Your task to perform on an android device: open sync settings in chrome Image 0: 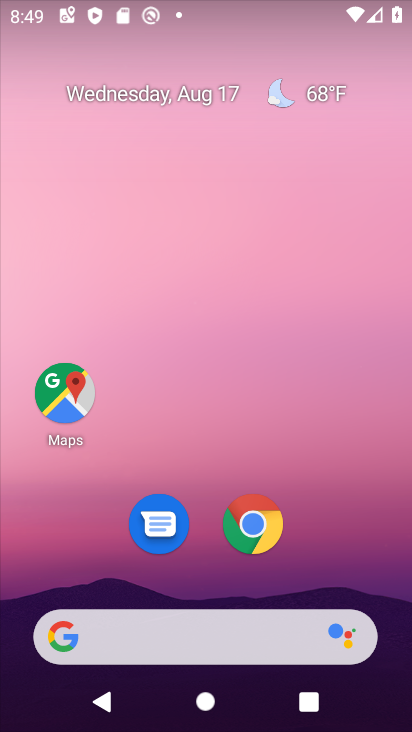
Step 0: click (257, 521)
Your task to perform on an android device: open sync settings in chrome Image 1: 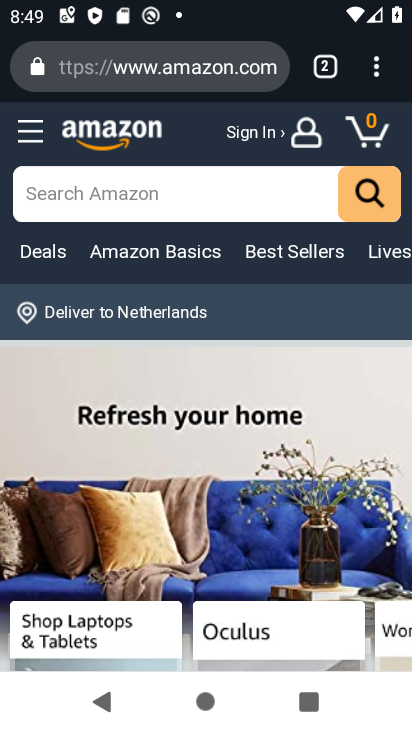
Step 1: click (374, 72)
Your task to perform on an android device: open sync settings in chrome Image 2: 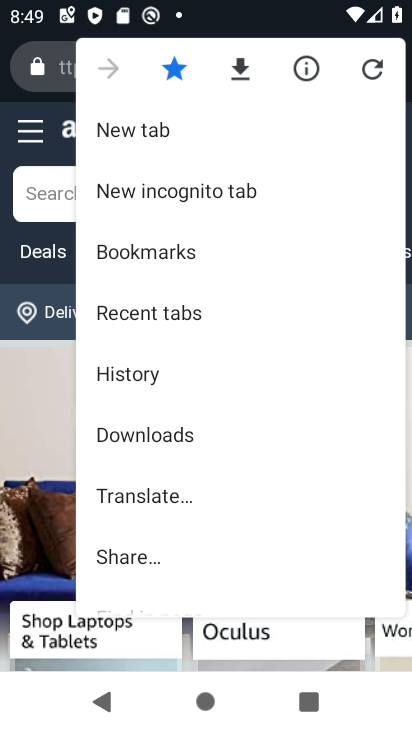
Step 2: drag from (284, 478) to (287, 172)
Your task to perform on an android device: open sync settings in chrome Image 3: 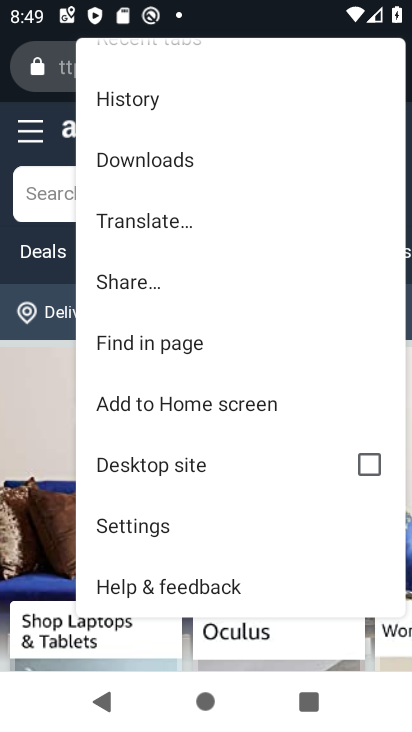
Step 3: click (151, 532)
Your task to perform on an android device: open sync settings in chrome Image 4: 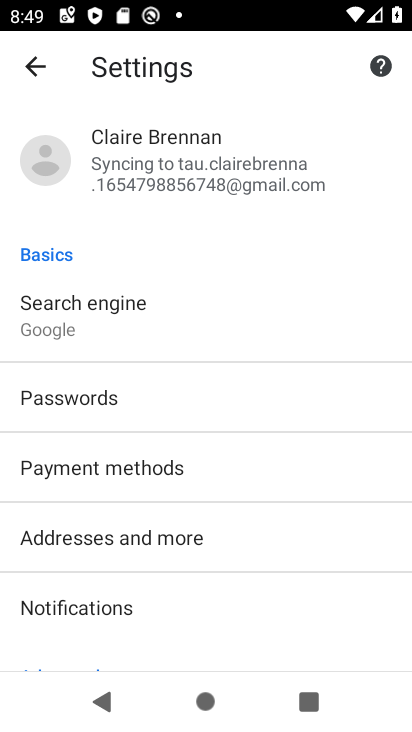
Step 4: click (175, 179)
Your task to perform on an android device: open sync settings in chrome Image 5: 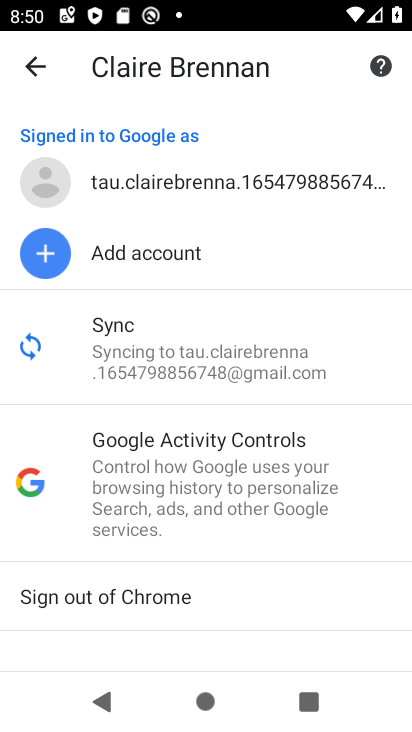
Step 5: click (159, 356)
Your task to perform on an android device: open sync settings in chrome Image 6: 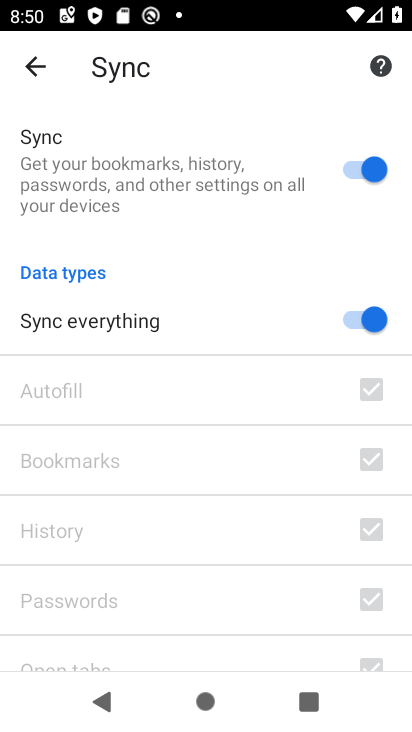
Step 6: task complete